Your task to perform on an android device: When is my next appointment? Image 0: 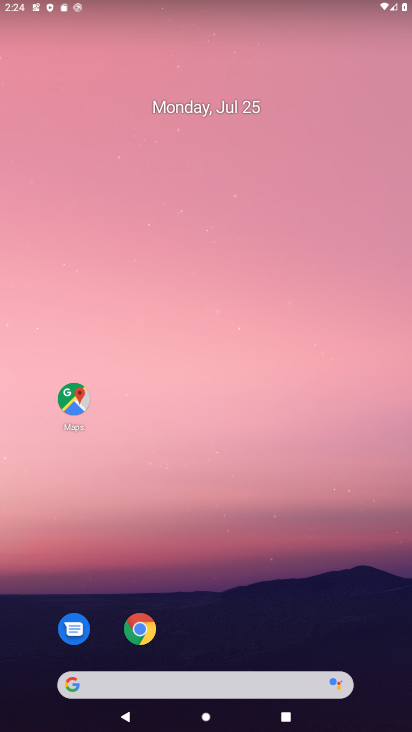
Step 0: drag from (89, 532) to (169, 304)
Your task to perform on an android device: When is my next appointment? Image 1: 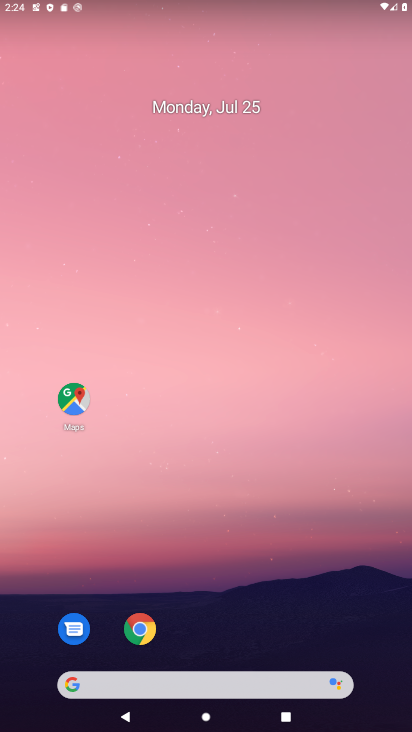
Step 1: drag from (52, 617) to (156, 131)
Your task to perform on an android device: When is my next appointment? Image 2: 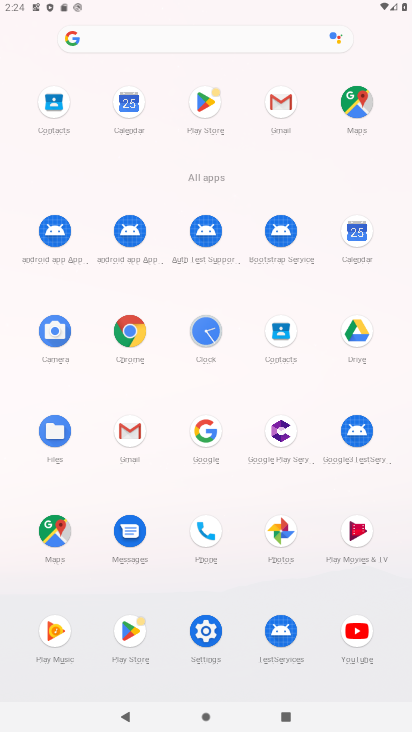
Step 2: click (357, 239)
Your task to perform on an android device: When is my next appointment? Image 3: 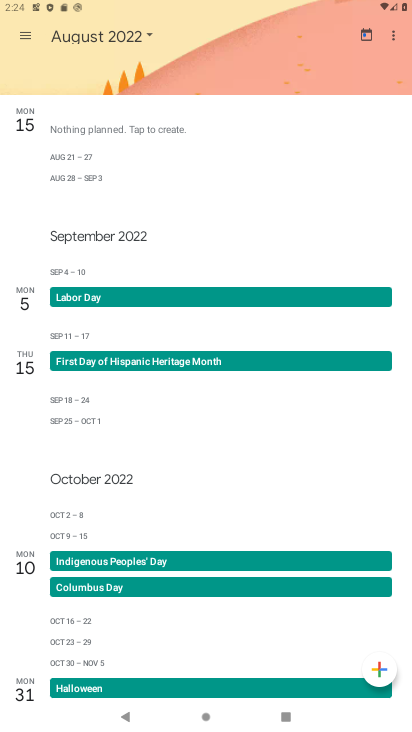
Step 3: click (144, 35)
Your task to perform on an android device: When is my next appointment? Image 4: 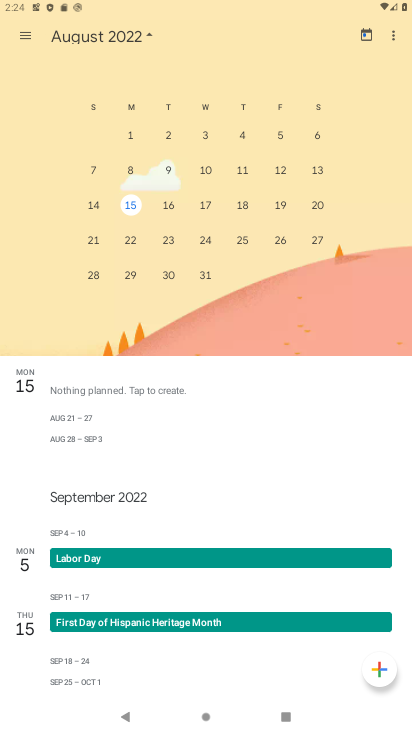
Step 4: task complete